Your task to perform on an android device: see sites visited before in the chrome app Image 0: 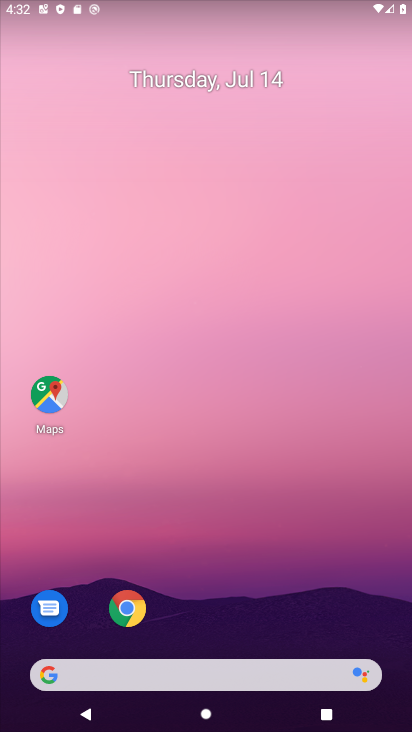
Step 0: click (148, 616)
Your task to perform on an android device: see sites visited before in the chrome app Image 1: 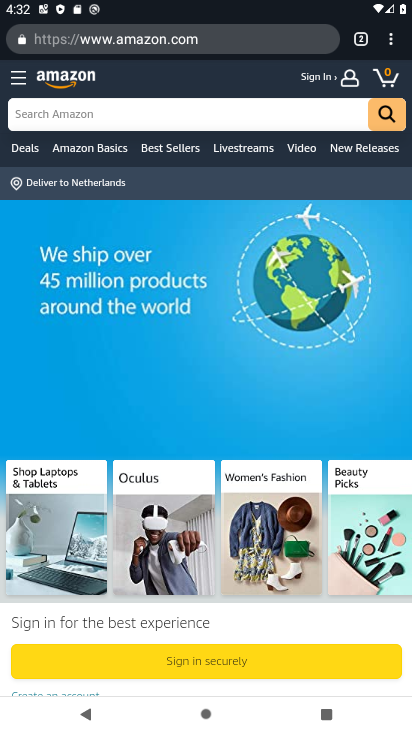
Step 1: click (396, 45)
Your task to perform on an android device: see sites visited before in the chrome app Image 2: 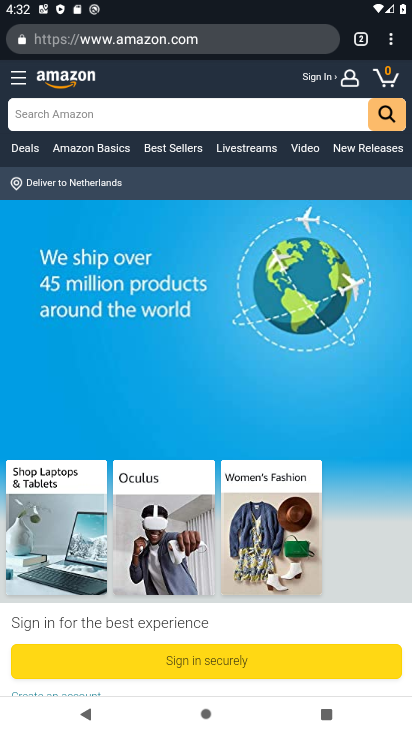
Step 2: click (394, 44)
Your task to perform on an android device: see sites visited before in the chrome app Image 3: 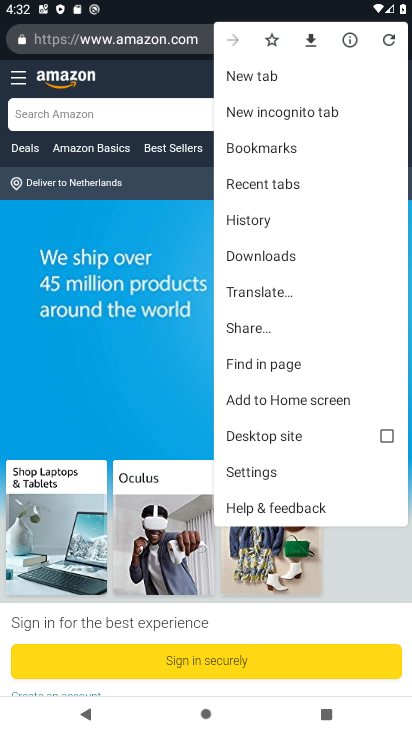
Step 3: click (293, 190)
Your task to perform on an android device: see sites visited before in the chrome app Image 4: 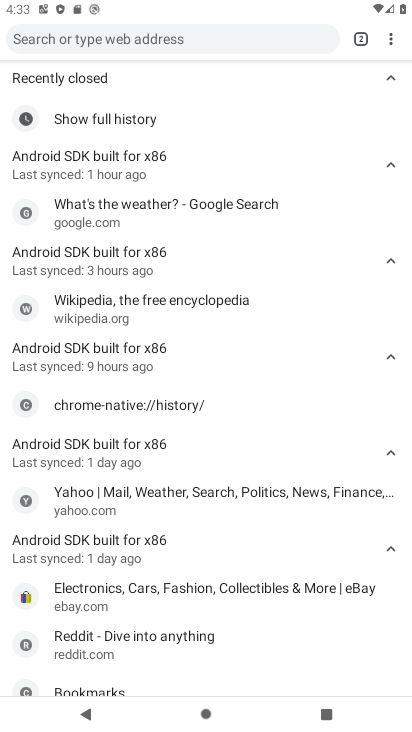
Step 4: task complete